Your task to perform on an android device: toggle priority inbox in the gmail app Image 0: 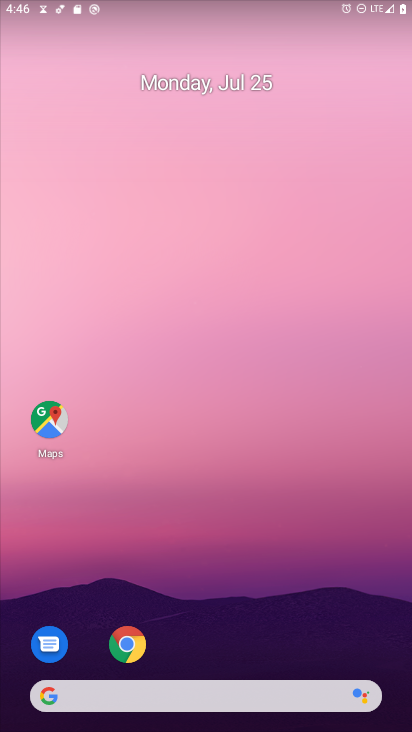
Step 0: press home button
Your task to perform on an android device: toggle priority inbox in the gmail app Image 1: 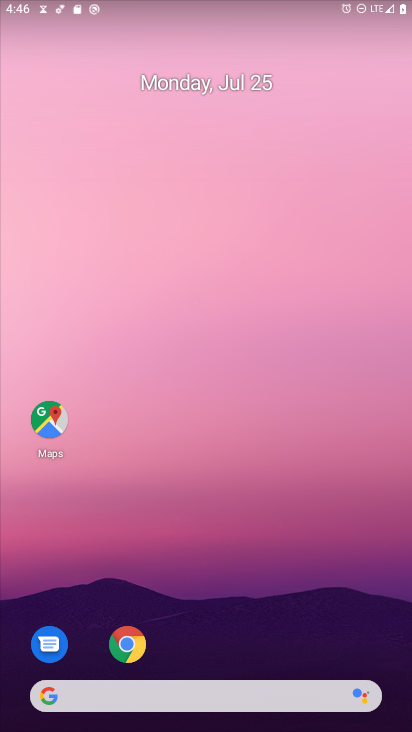
Step 1: drag from (251, 609) to (231, 47)
Your task to perform on an android device: toggle priority inbox in the gmail app Image 2: 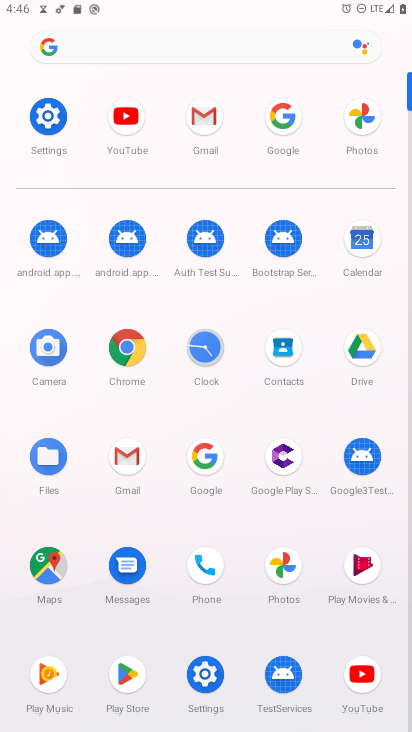
Step 2: click (200, 120)
Your task to perform on an android device: toggle priority inbox in the gmail app Image 3: 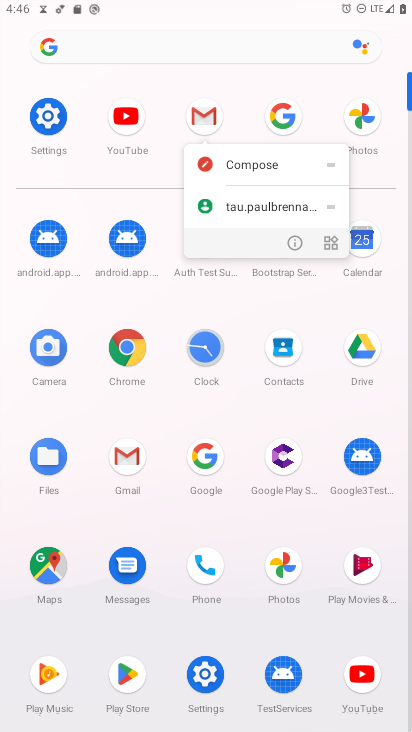
Step 3: click (211, 116)
Your task to perform on an android device: toggle priority inbox in the gmail app Image 4: 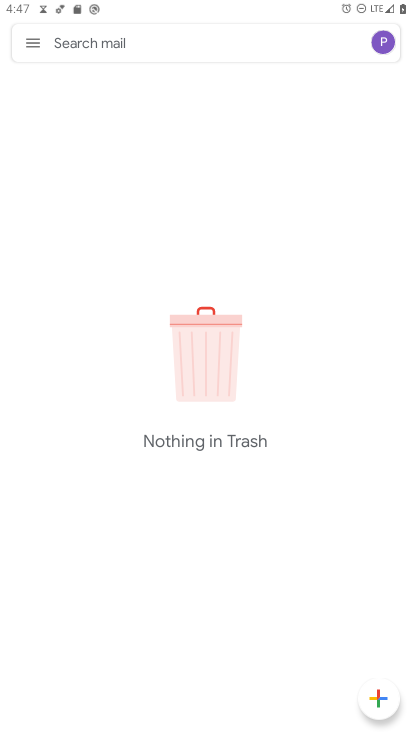
Step 4: click (32, 45)
Your task to perform on an android device: toggle priority inbox in the gmail app Image 5: 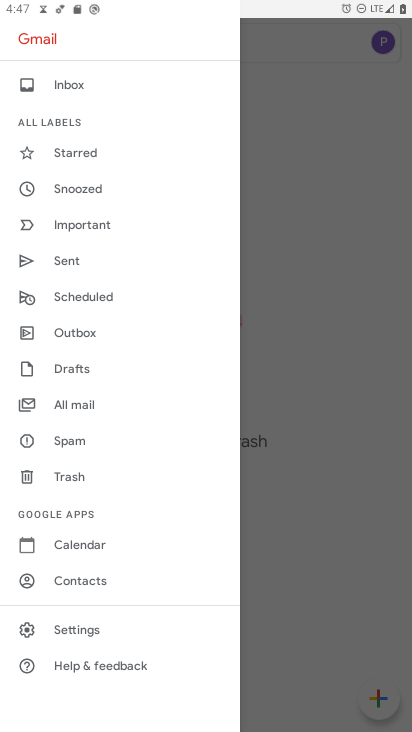
Step 5: click (63, 631)
Your task to perform on an android device: toggle priority inbox in the gmail app Image 6: 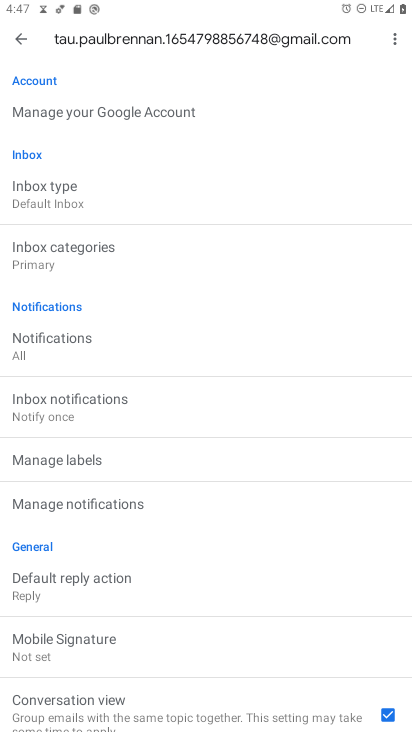
Step 6: click (41, 199)
Your task to perform on an android device: toggle priority inbox in the gmail app Image 7: 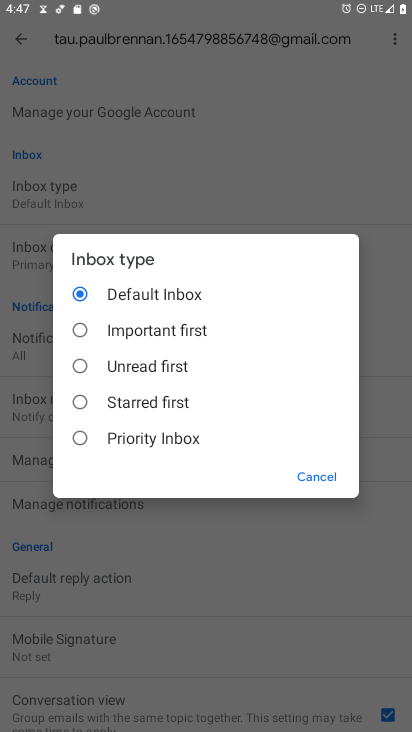
Step 7: click (83, 433)
Your task to perform on an android device: toggle priority inbox in the gmail app Image 8: 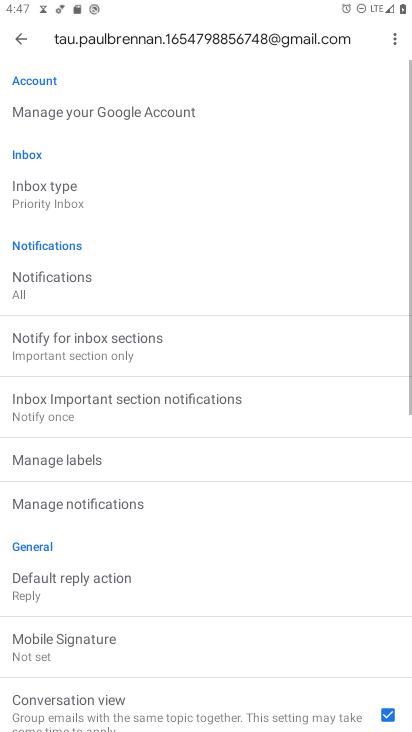
Step 8: task complete